Your task to perform on an android device: turn on the 24-hour format for clock Image 0: 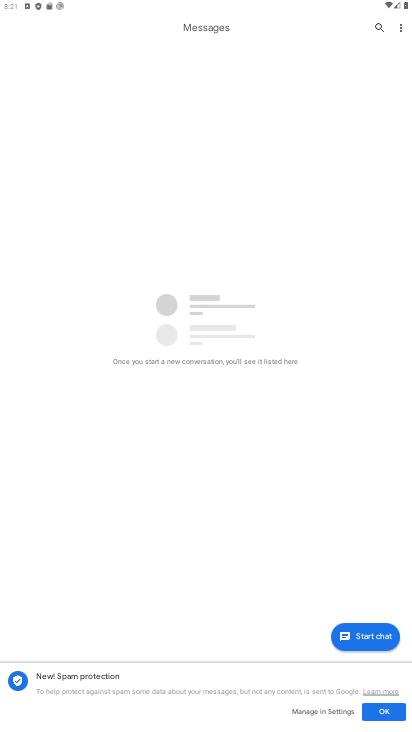
Step 0: press home button
Your task to perform on an android device: turn on the 24-hour format for clock Image 1: 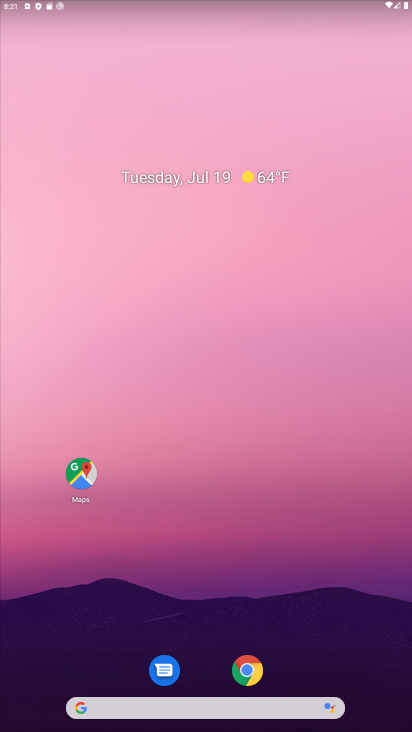
Step 1: drag from (233, 625) to (229, 75)
Your task to perform on an android device: turn on the 24-hour format for clock Image 2: 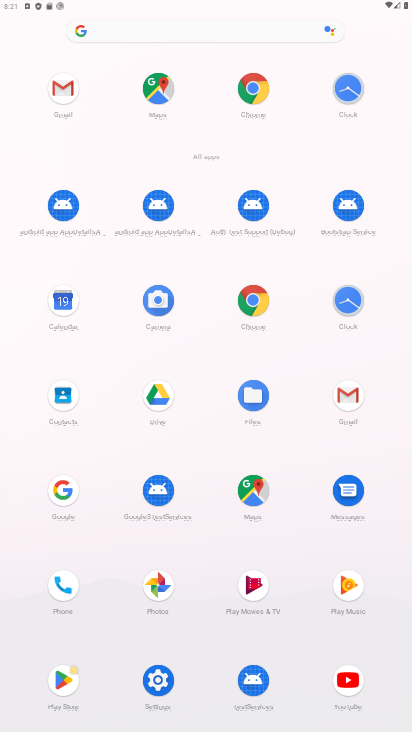
Step 2: click (349, 299)
Your task to perform on an android device: turn on the 24-hour format for clock Image 3: 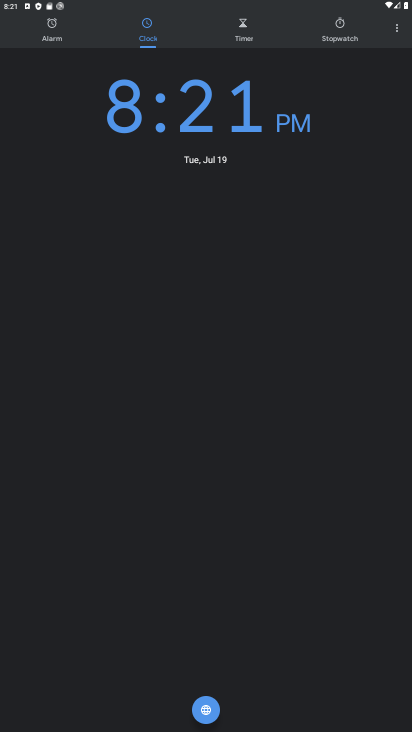
Step 3: click (400, 23)
Your task to perform on an android device: turn on the 24-hour format for clock Image 4: 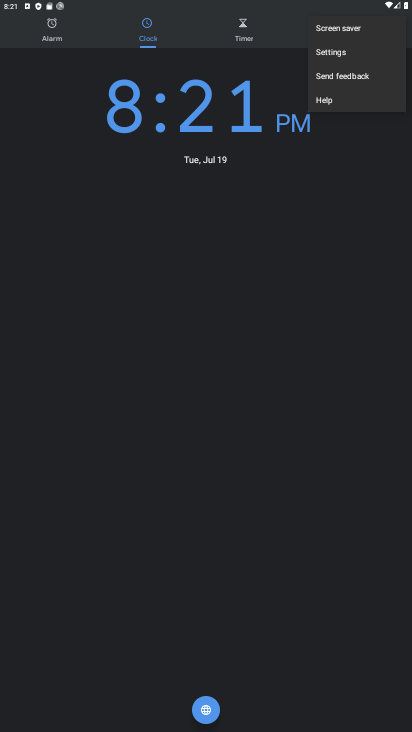
Step 4: click (356, 52)
Your task to perform on an android device: turn on the 24-hour format for clock Image 5: 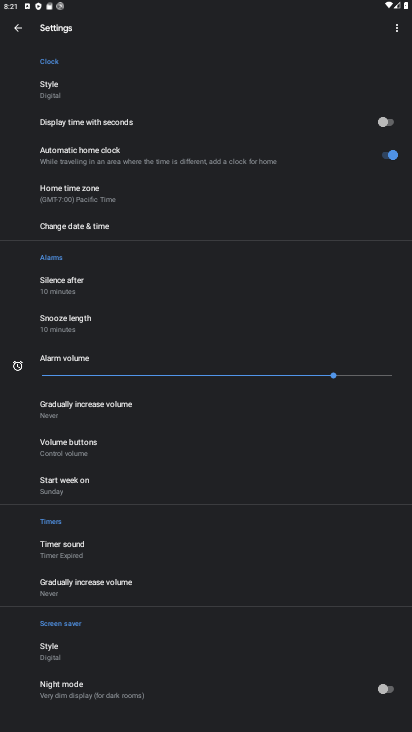
Step 5: click (159, 225)
Your task to perform on an android device: turn on the 24-hour format for clock Image 6: 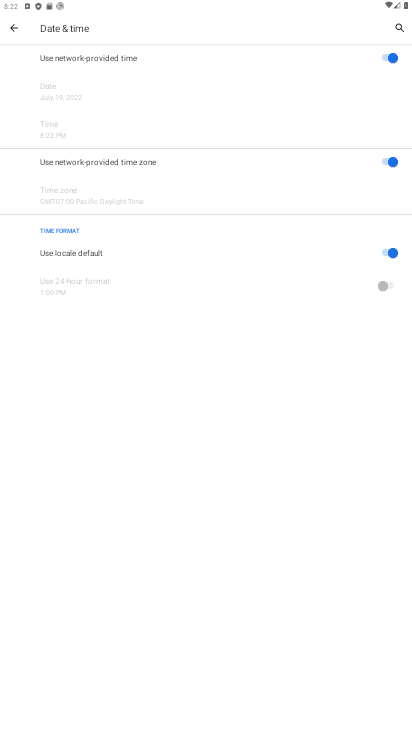
Step 6: click (398, 248)
Your task to perform on an android device: turn on the 24-hour format for clock Image 7: 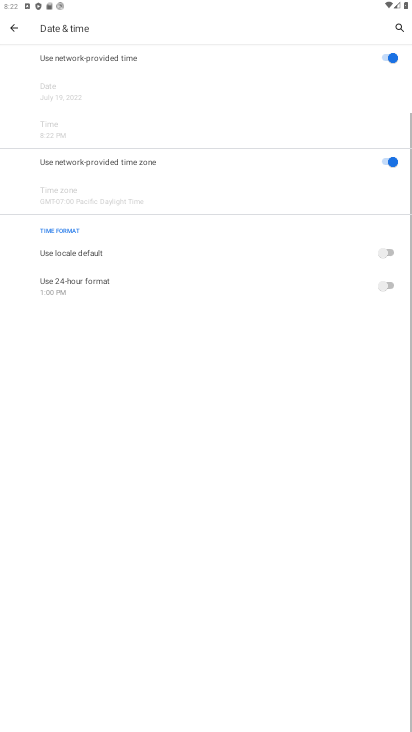
Step 7: click (391, 285)
Your task to perform on an android device: turn on the 24-hour format for clock Image 8: 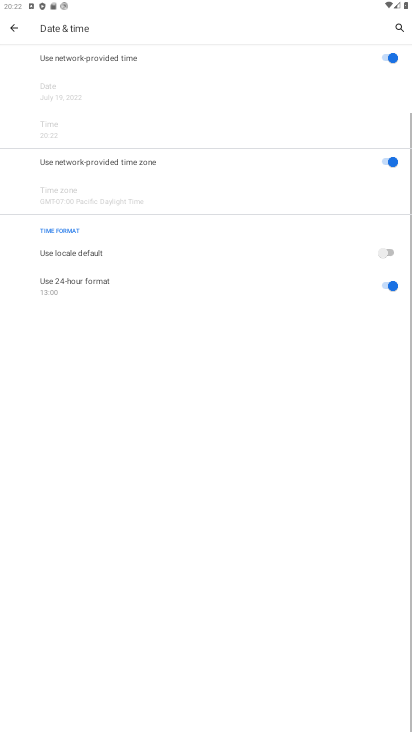
Step 8: task complete